Your task to perform on an android device: toggle notification dots Image 0: 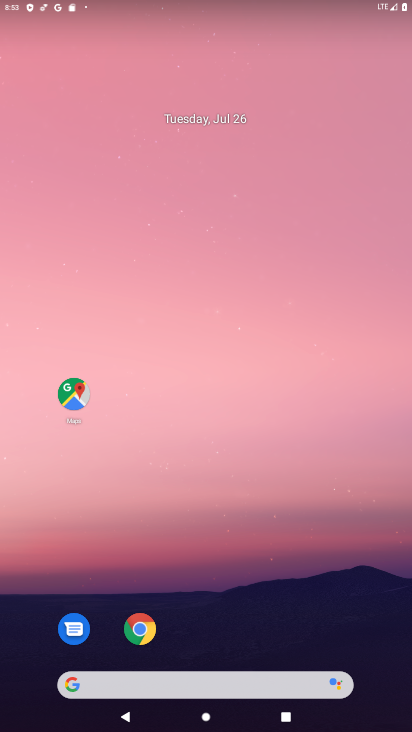
Step 0: press home button
Your task to perform on an android device: toggle notification dots Image 1: 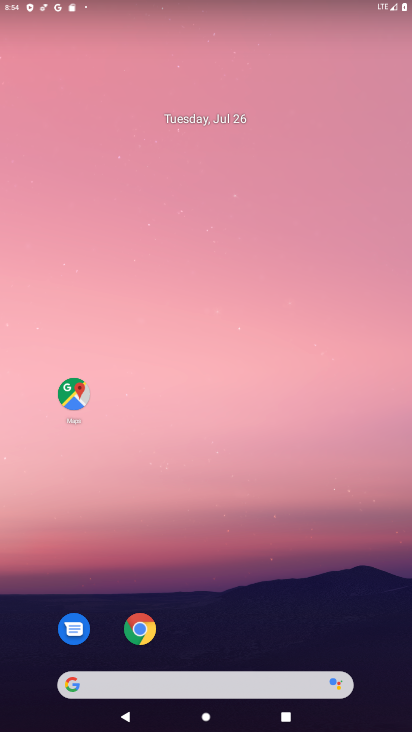
Step 1: drag from (280, 616) to (307, 103)
Your task to perform on an android device: toggle notification dots Image 2: 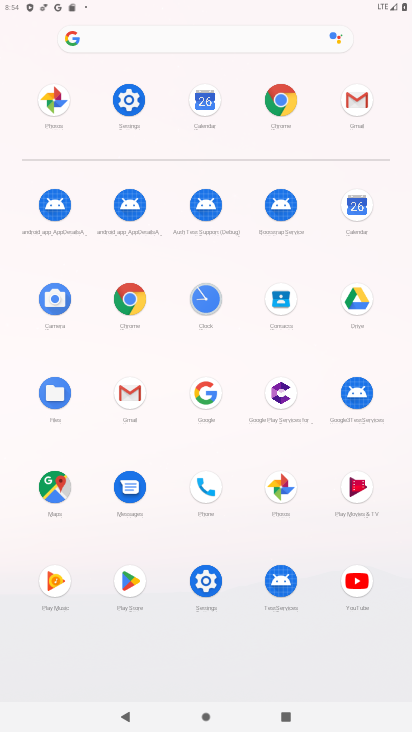
Step 2: click (120, 107)
Your task to perform on an android device: toggle notification dots Image 3: 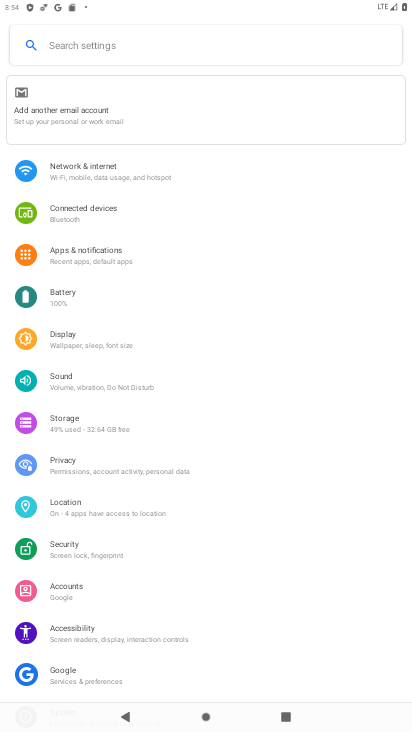
Step 3: click (87, 252)
Your task to perform on an android device: toggle notification dots Image 4: 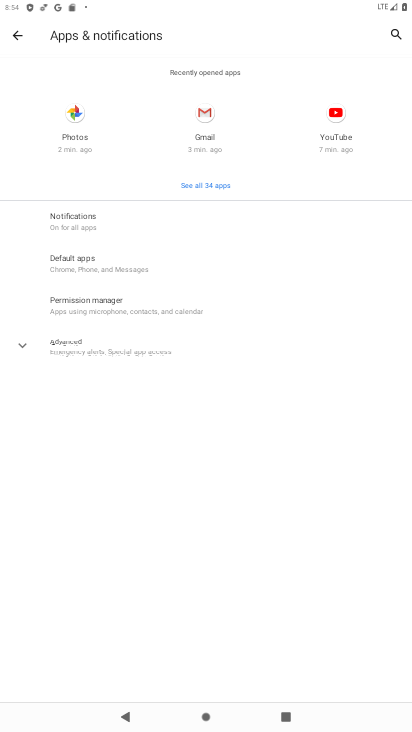
Step 4: click (123, 230)
Your task to perform on an android device: toggle notification dots Image 5: 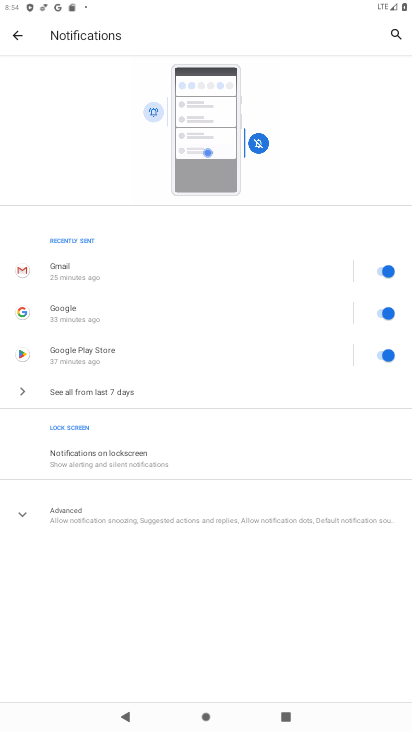
Step 5: click (78, 517)
Your task to perform on an android device: toggle notification dots Image 6: 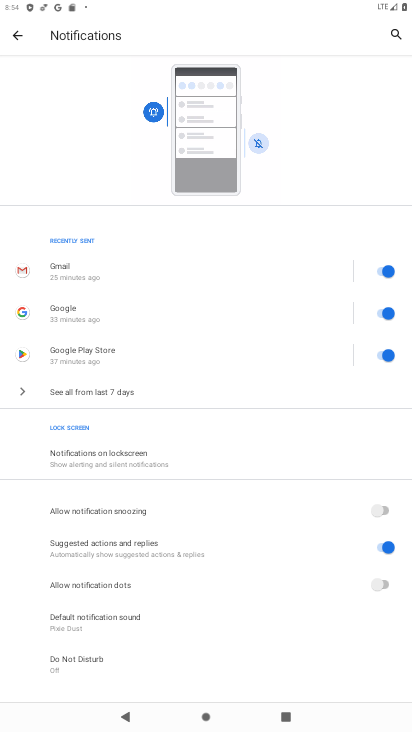
Step 6: click (82, 591)
Your task to perform on an android device: toggle notification dots Image 7: 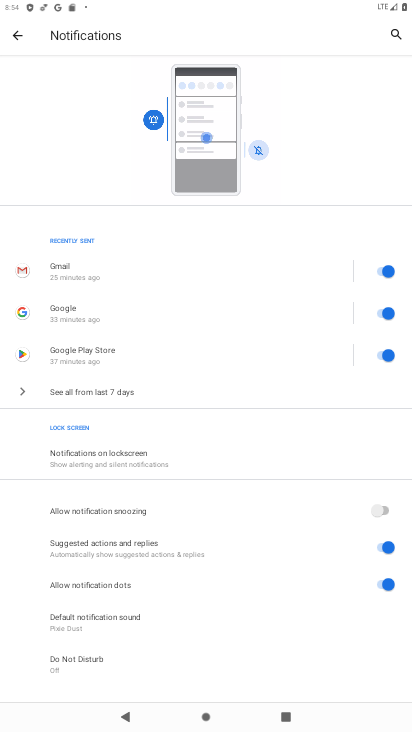
Step 7: task complete